Your task to perform on an android device: open app "Pinterest" (install if not already installed) Image 0: 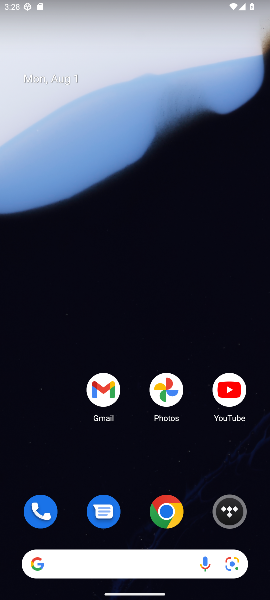
Step 0: drag from (144, 476) to (122, 96)
Your task to perform on an android device: open app "Pinterest" (install if not already installed) Image 1: 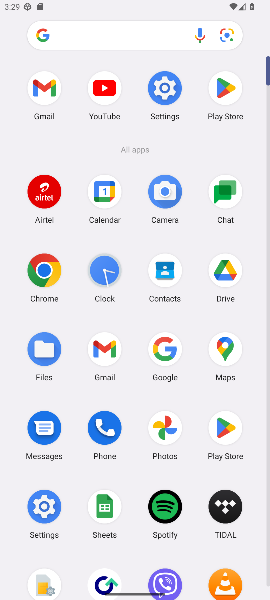
Step 1: click (240, 108)
Your task to perform on an android device: open app "Pinterest" (install if not already installed) Image 2: 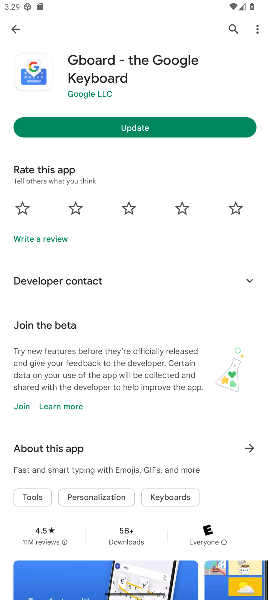
Step 2: click (14, 31)
Your task to perform on an android device: open app "Pinterest" (install if not already installed) Image 3: 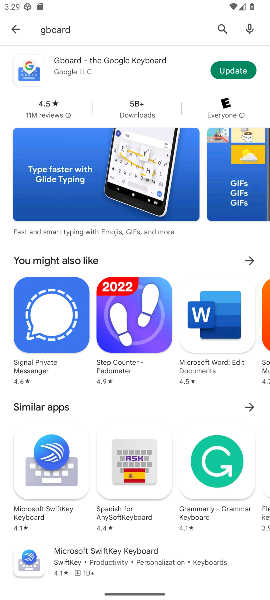
Step 3: click (17, 31)
Your task to perform on an android device: open app "Pinterest" (install if not already installed) Image 4: 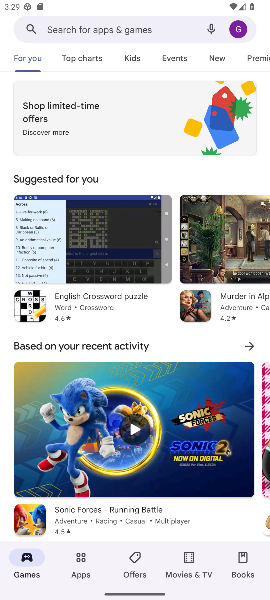
Step 4: click (87, 28)
Your task to perform on an android device: open app "Pinterest" (install if not already installed) Image 5: 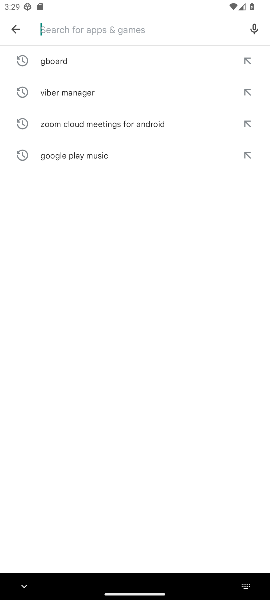
Step 5: type "Pinterest"
Your task to perform on an android device: open app "Pinterest" (install if not already installed) Image 6: 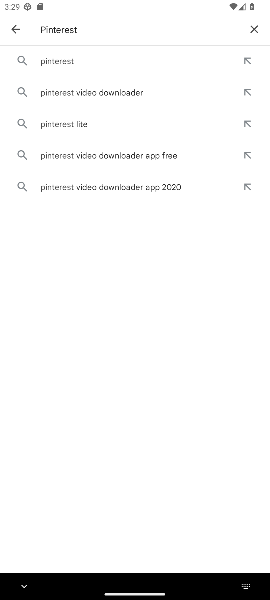
Step 6: click (46, 59)
Your task to perform on an android device: open app "Pinterest" (install if not already installed) Image 7: 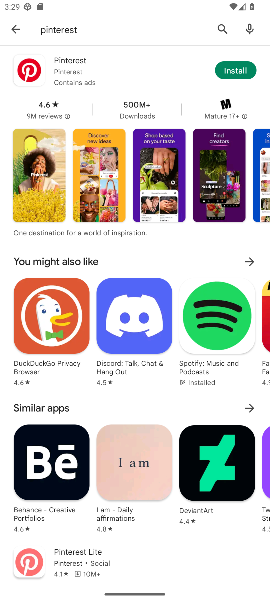
Step 7: click (234, 71)
Your task to perform on an android device: open app "Pinterest" (install if not already installed) Image 8: 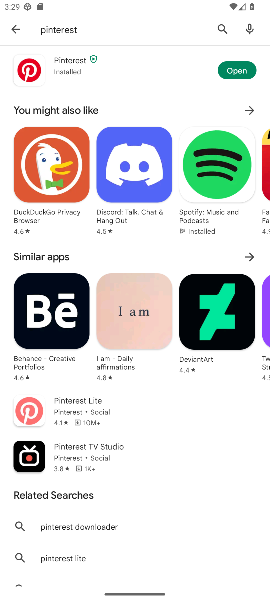
Step 8: click (245, 63)
Your task to perform on an android device: open app "Pinterest" (install if not already installed) Image 9: 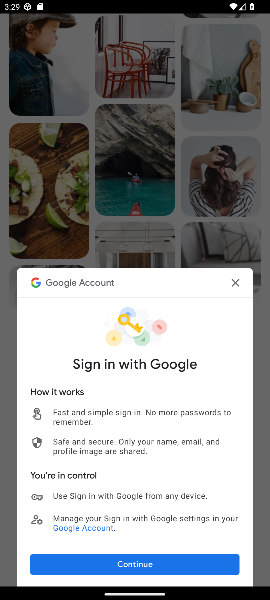
Step 9: click (123, 560)
Your task to perform on an android device: open app "Pinterest" (install if not already installed) Image 10: 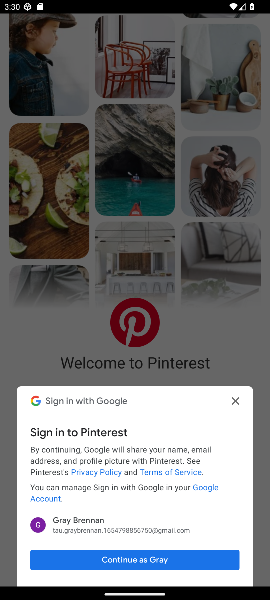
Step 10: click (137, 560)
Your task to perform on an android device: open app "Pinterest" (install if not already installed) Image 11: 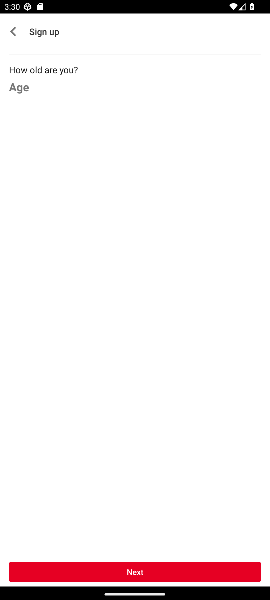
Step 11: click (125, 566)
Your task to perform on an android device: open app "Pinterest" (install if not already installed) Image 12: 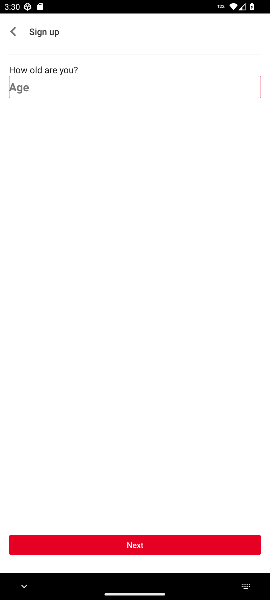
Step 12: click (133, 540)
Your task to perform on an android device: open app "Pinterest" (install if not already installed) Image 13: 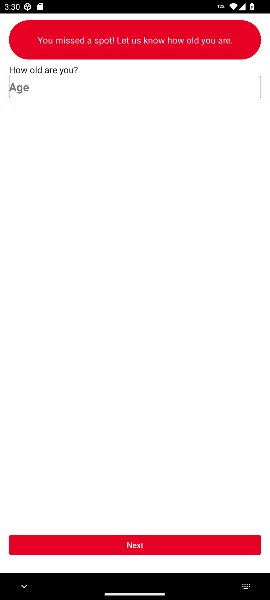
Step 13: task complete